Your task to perform on an android device: change the upload size in google photos Image 0: 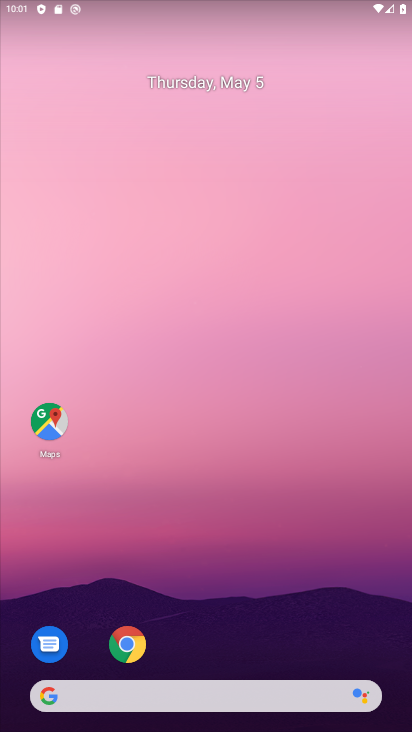
Step 0: drag from (211, 667) to (139, 20)
Your task to perform on an android device: change the upload size in google photos Image 1: 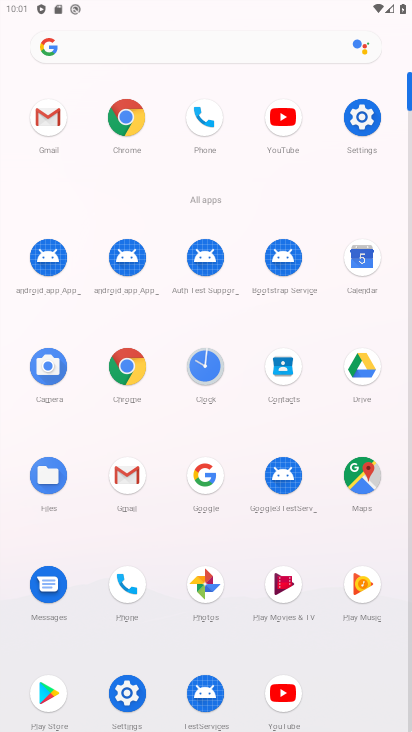
Step 1: click (204, 585)
Your task to perform on an android device: change the upload size in google photos Image 2: 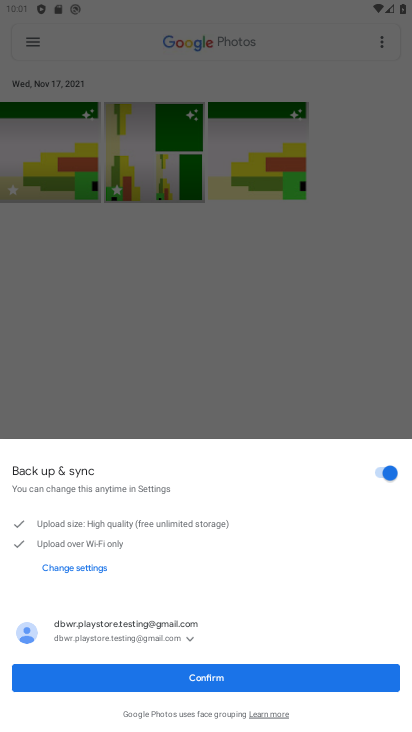
Step 2: click (61, 564)
Your task to perform on an android device: change the upload size in google photos Image 3: 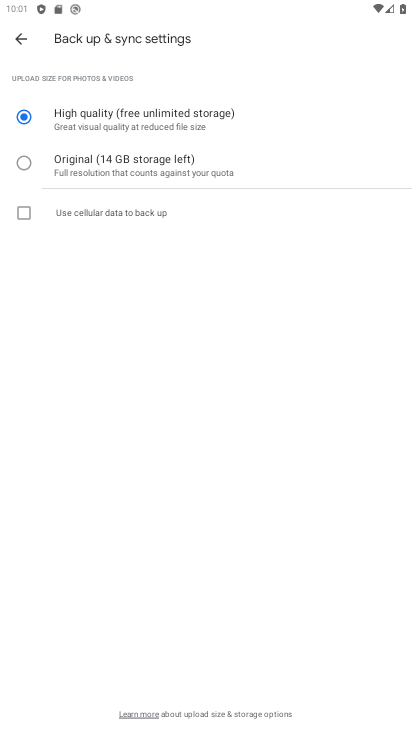
Step 3: click (19, 163)
Your task to perform on an android device: change the upload size in google photos Image 4: 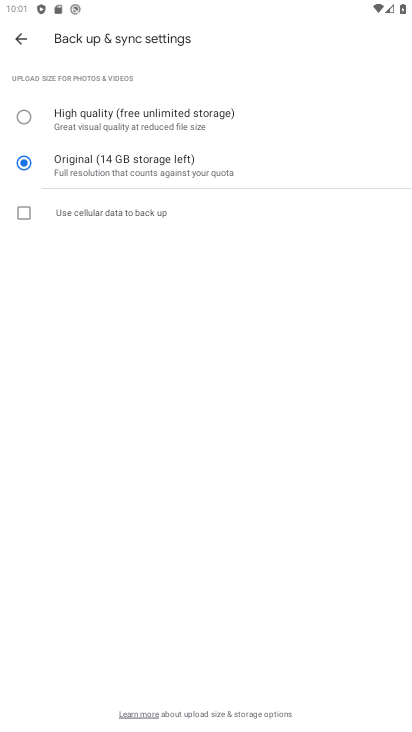
Step 4: task complete